Your task to perform on an android device: find photos in the google photos app Image 0: 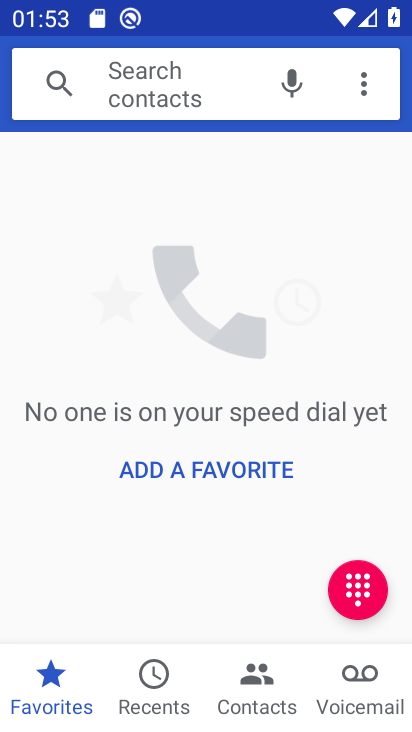
Step 0: press home button
Your task to perform on an android device: find photos in the google photos app Image 1: 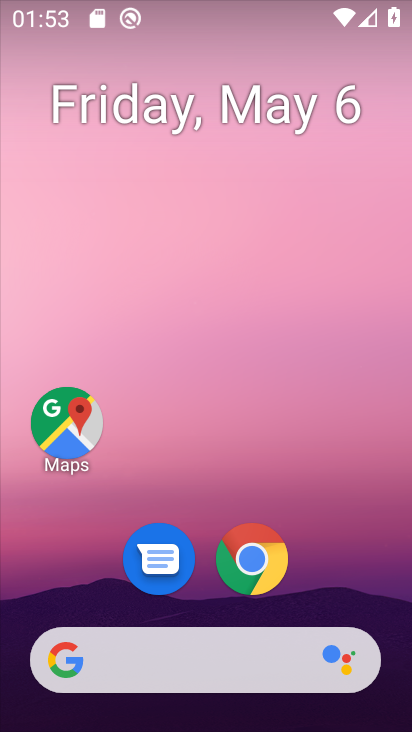
Step 1: drag from (251, 590) to (237, 8)
Your task to perform on an android device: find photos in the google photos app Image 2: 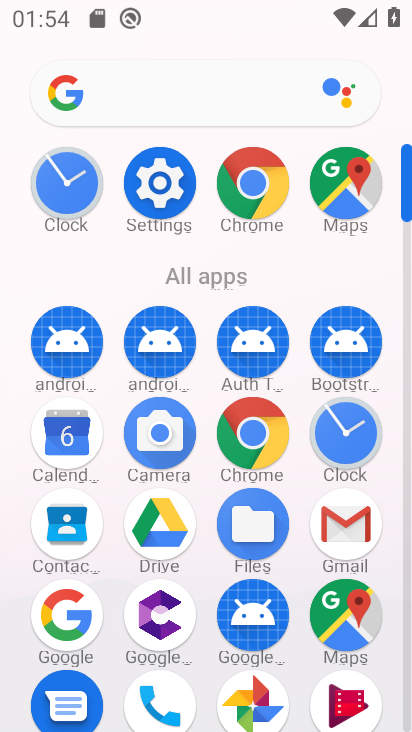
Step 2: click (259, 699)
Your task to perform on an android device: find photos in the google photos app Image 3: 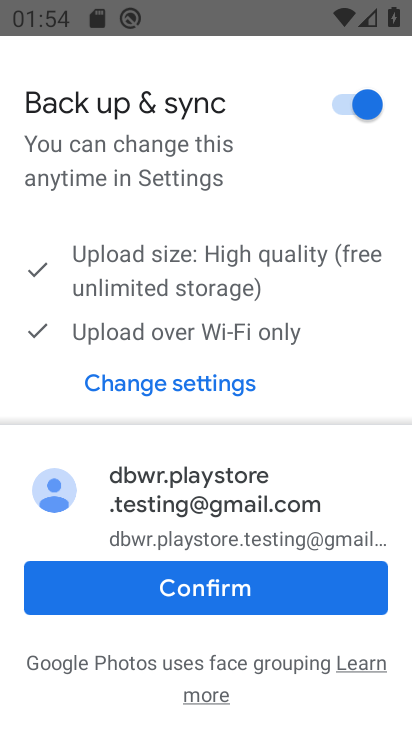
Step 3: click (259, 601)
Your task to perform on an android device: find photos in the google photos app Image 4: 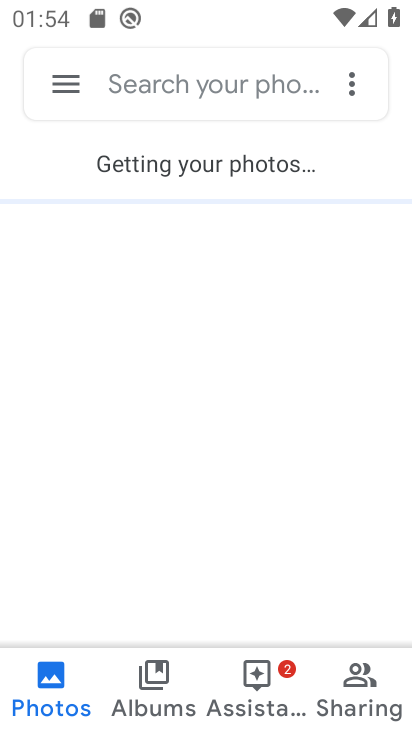
Step 4: click (55, 678)
Your task to perform on an android device: find photos in the google photos app Image 5: 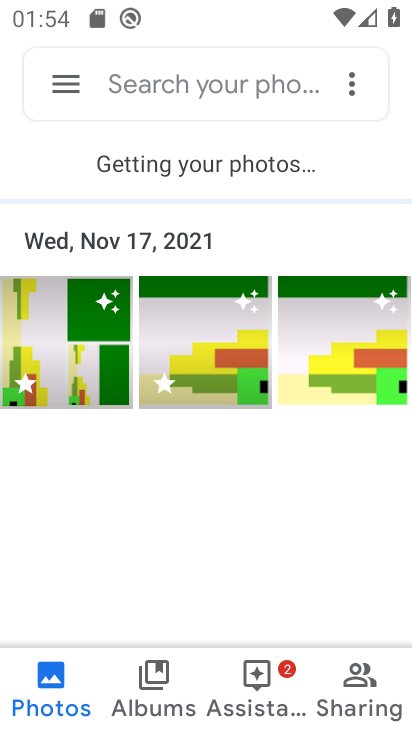
Step 5: task complete